Your task to perform on an android device: Open Chrome and go to the settings page Image 0: 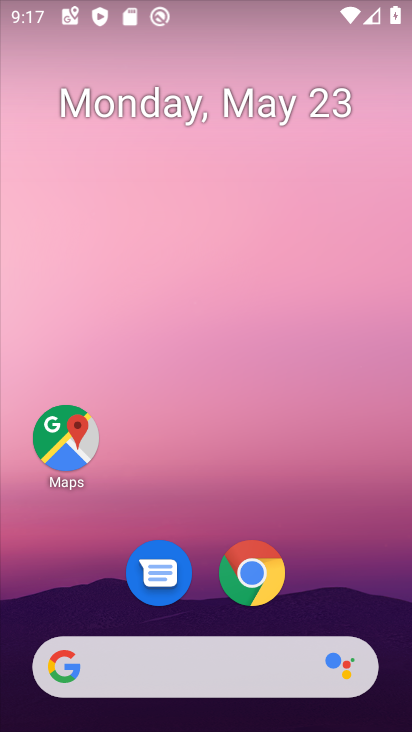
Step 0: drag from (392, 587) to (359, 217)
Your task to perform on an android device: Open Chrome and go to the settings page Image 1: 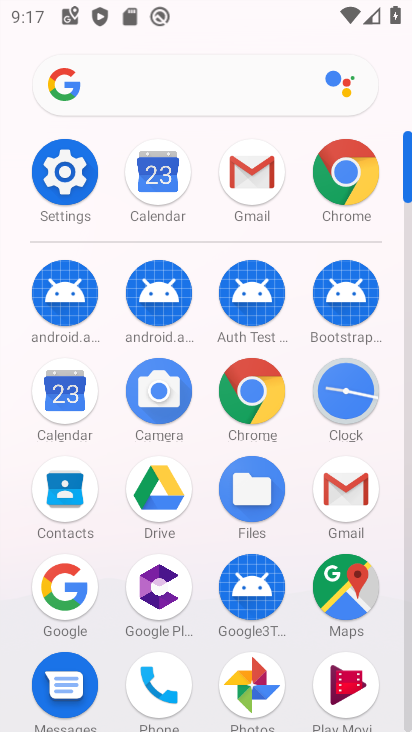
Step 1: click (263, 400)
Your task to perform on an android device: Open Chrome and go to the settings page Image 2: 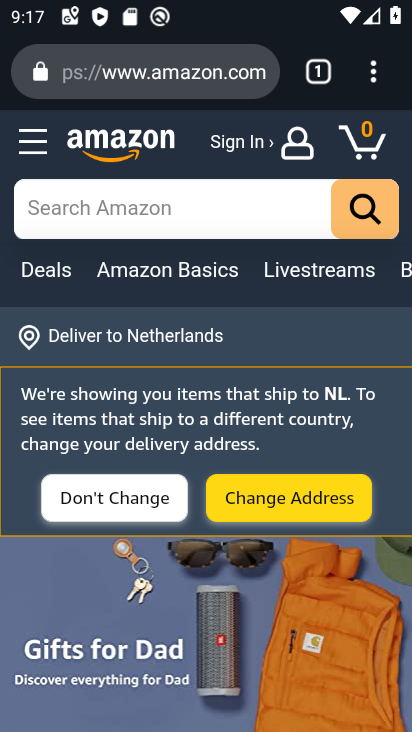
Step 2: click (375, 81)
Your task to perform on an android device: Open Chrome and go to the settings page Image 3: 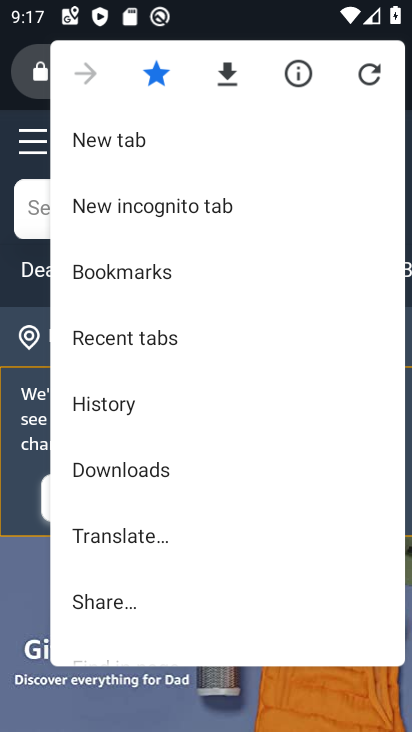
Step 3: drag from (369, 441) to (358, 366)
Your task to perform on an android device: Open Chrome and go to the settings page Image 4: 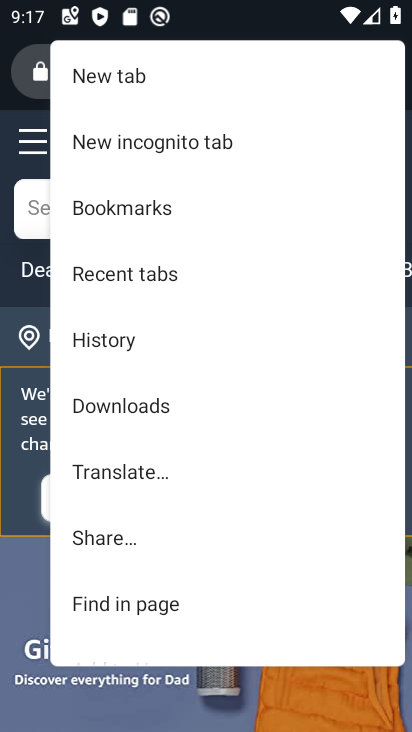
Step 4: drag from (334, 476) to (338, 418)
Your task to perform on an android device: Open Chrome and go to the settings page Image 5: 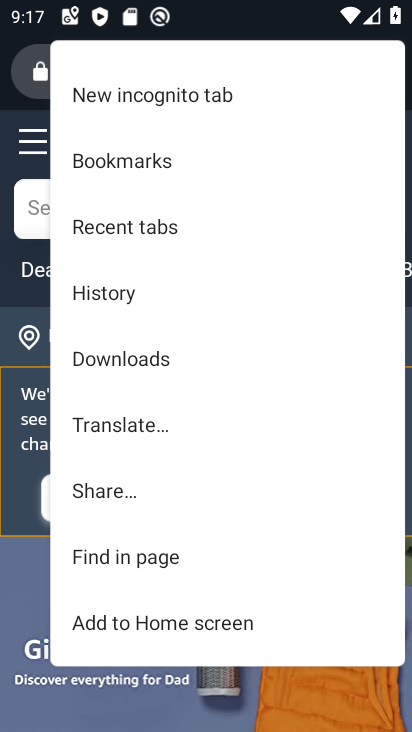
Step 5: drag from (336, 464) to (350, 397)
Your task to perform on an android device: Open Chrome and go to the settings page Image 6: 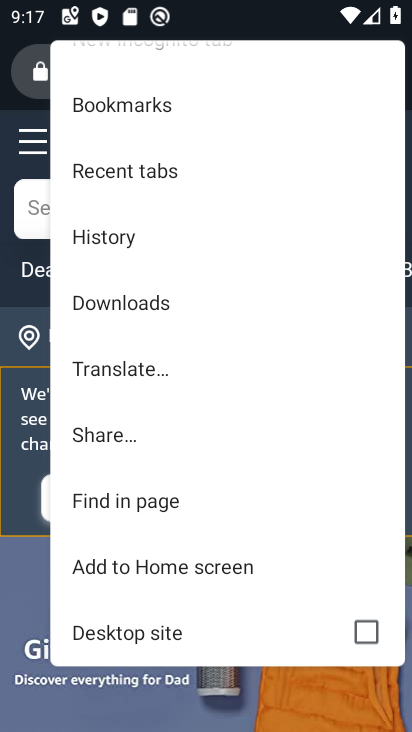
Step 6: drag from (315, 492) to (329, 438)
Your task to perform on an android device: Open Chrome and go to the settings page Image 7: 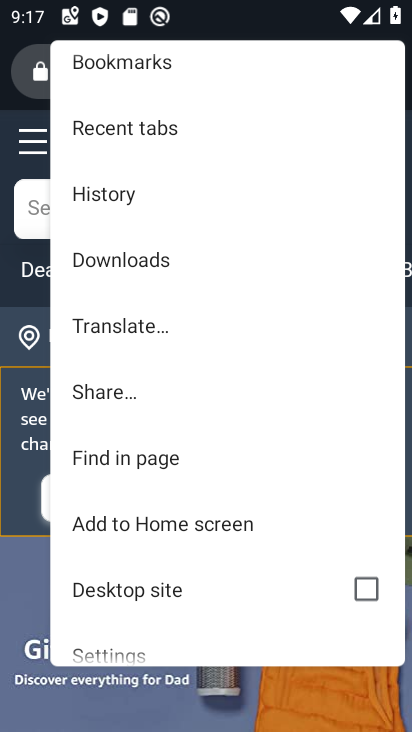
Step 7: drag from (303, 498) to (318, 457)
Your task to perform on an android device: Open Chrome and go to the settings page Image 8: 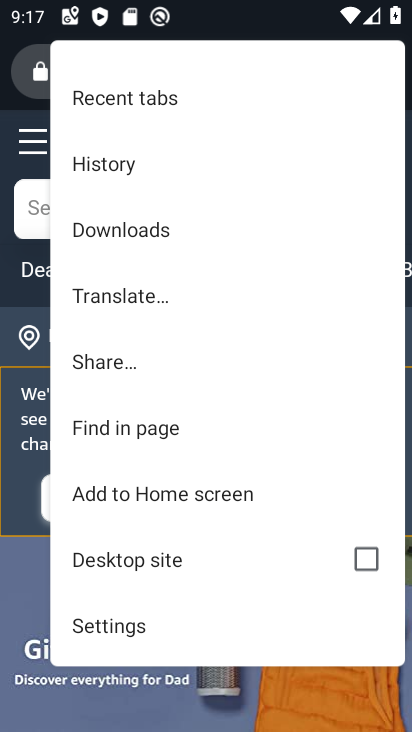
Step 8: drag from (296, 508) to (296, 467)
Your task to perform on an android device: Open Chrome and go to the settings page Image 9: 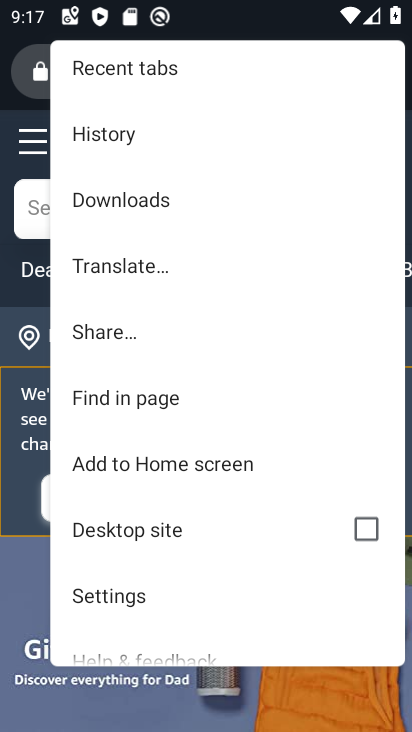
Step 9: drag from (315, 516) to (298, 389)
Your task to perform on an android device: Open Chrome and go to the settings page Image 10: 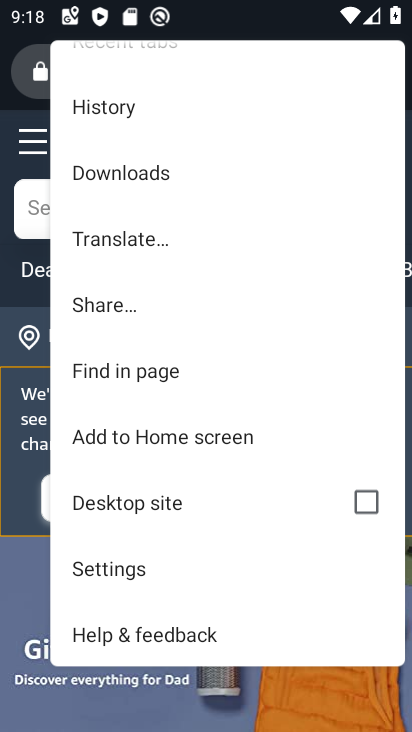
Step 10: click (183, 584)
Your task to perform on an android device: Open Chrome and go to the settings page Image 11: 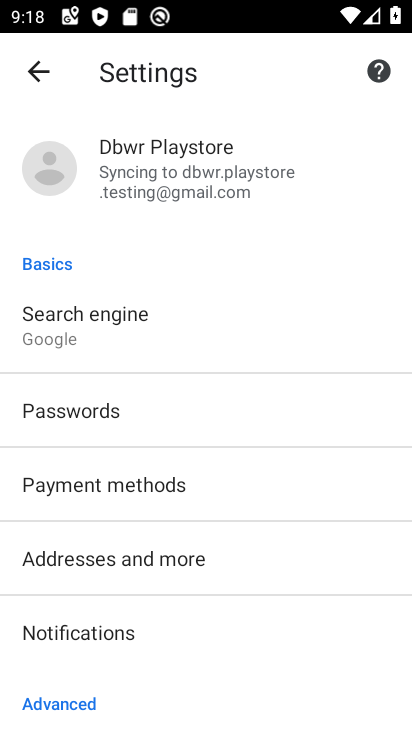
Step 11: task complete